Your task to perform on an android device: turn on showing notifications on the lock screen Image 0: 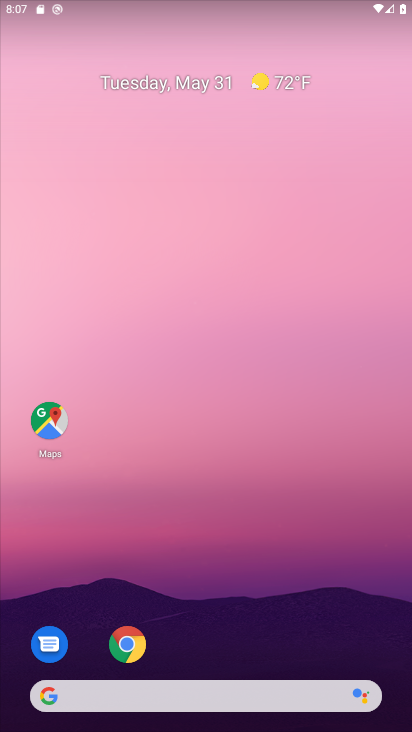
Step 0: press home button
Your task to perform on an android device: turn on showing notifications on the lock screen Image 1: 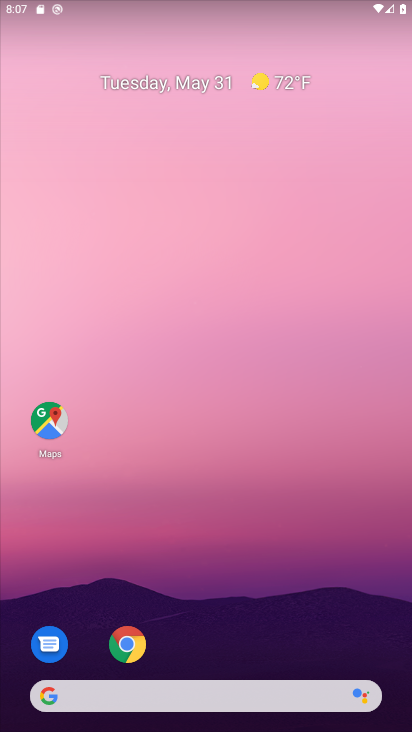
Step 1: drag from (216, 653) to (209, 193)
Your task to perform on an android device: turn on showing notifications on the lock screen Image 2: 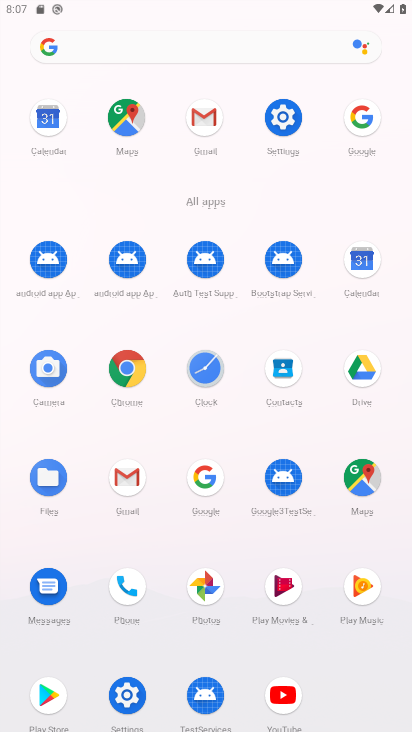
Step 2: click (278, 112)
Your task to perform on an android device: turn on showing notifications on the lock screen Image 3: 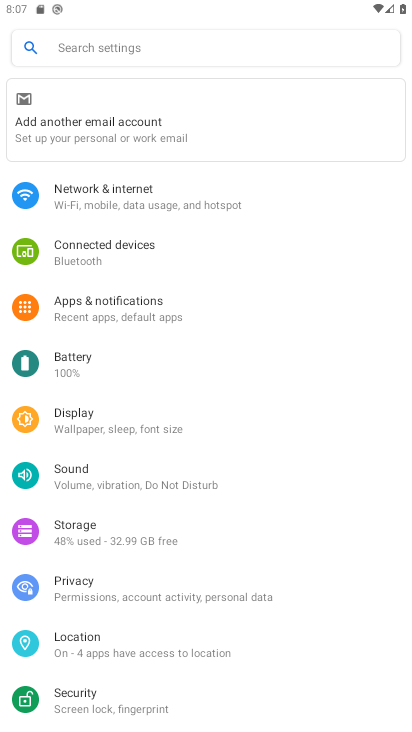
Step 3: click (136, 302)
Your task to perform on an android device: turn on showing notifications on the lock screen Image 4: 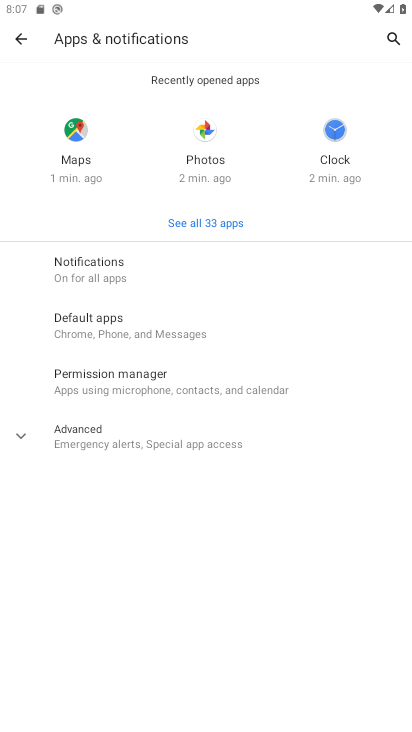
Step 4: click (130, 263)
Your task to perform on an android device: turn on showing notifications on the lock screen Image 5: 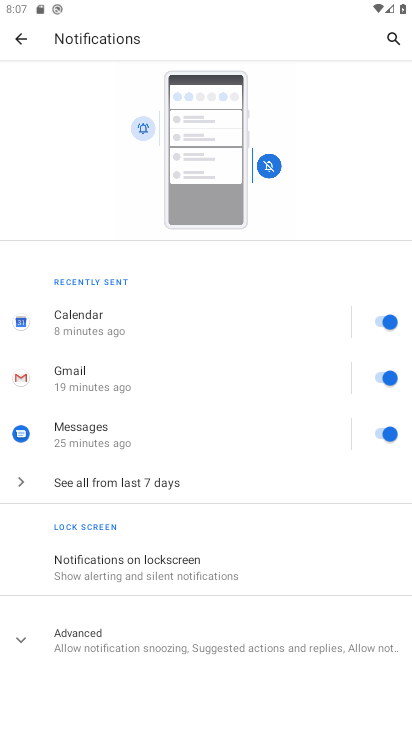
Step 5: click (168, 560)
Your task to perform on an android device: turn on showing notifications on the lock screen Image 6: 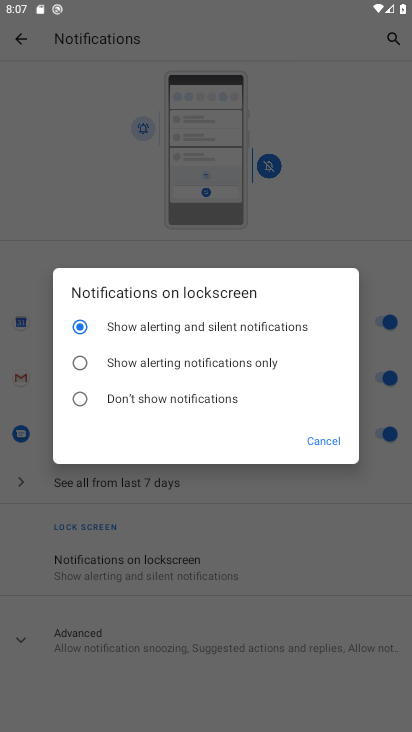
Step 6: click (79, 362)
Your task to perform on an android device: turn on showing notifications on the lock screen Image 7: 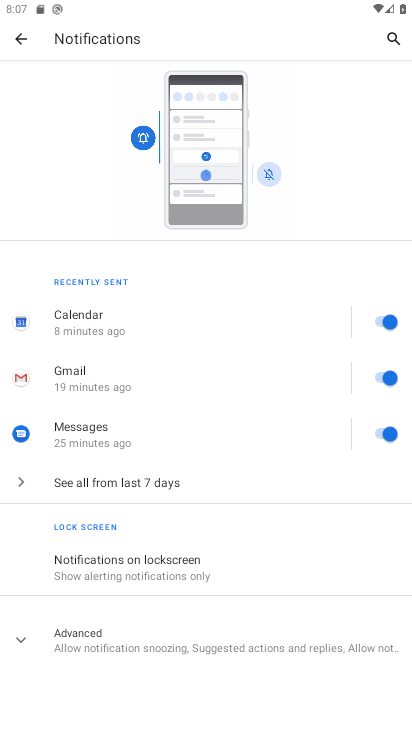
Step 7: task complete